Your task to perform on an android device: check android version Image 0: 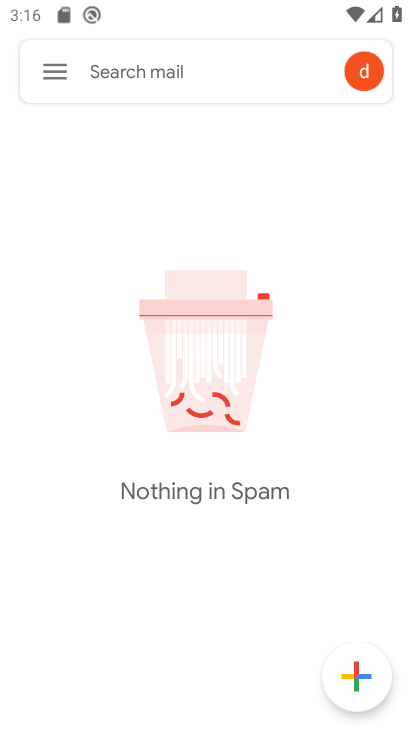
Step 0: press home button
Your task to perform on an android device: check android version Image 1: 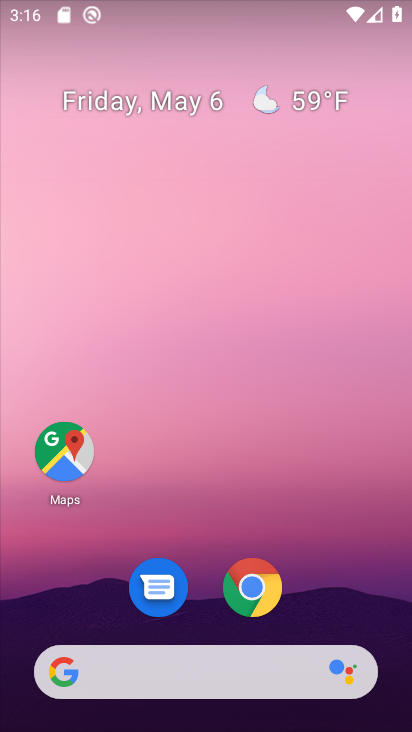
Step 1: drag from (300, 485) to (287, 36)
Your task to perform on an android device: check android version Image 2: 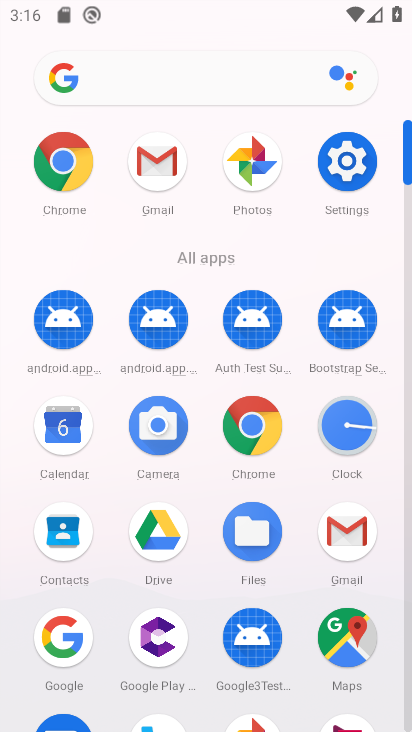
Step 2: click (347, 157)
Your task to perform on an android device: check android version Image 3: 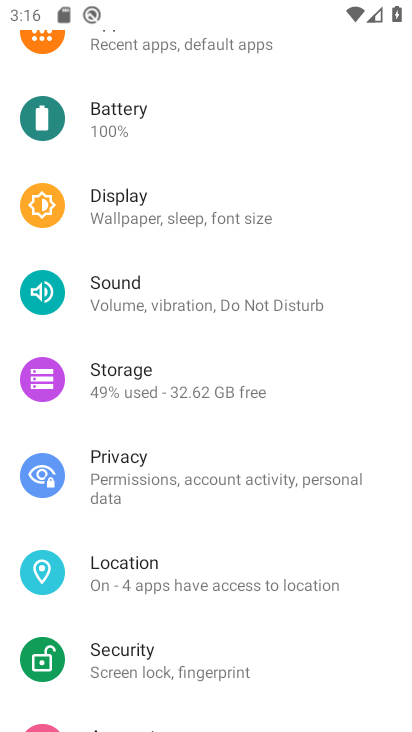
Step 3: drag from (257, 593) to (262, 86)
Your task to perform on an android device: check android version Image 4: 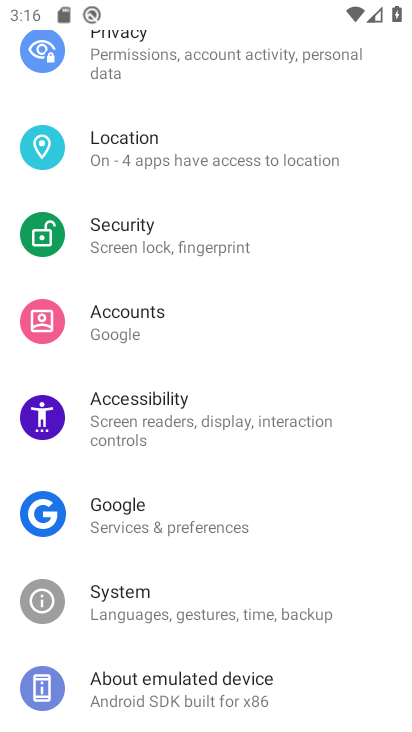
Step 4: click (196, 691)
Your task to perform on an android device: check android version Image 5: 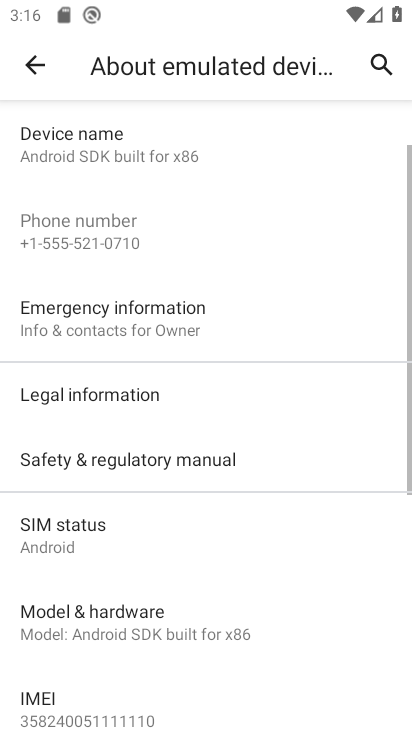
Step 5: drag from (240, 584) to (234, 143)
Your task to perform on an android device: check android version Image 6: 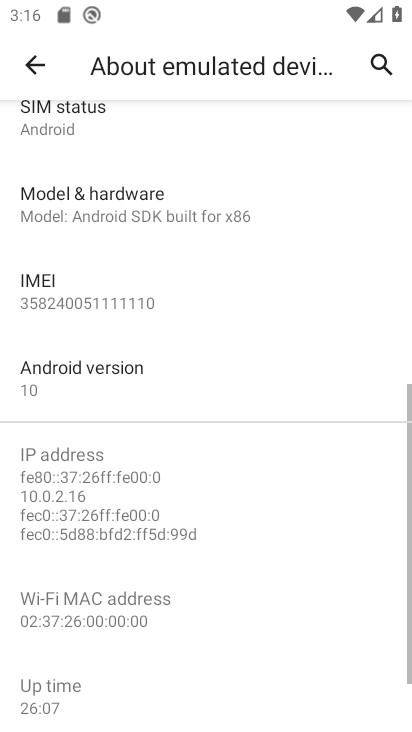
Step 6: click (89, 379)
Your task to perform on an android device: check android version Image 7: 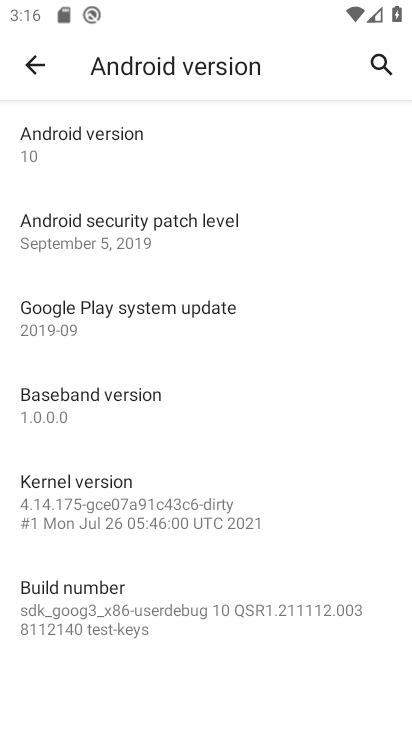
Step 7: task complete